Your task to perform on an android device: Do I have any events this weekend? Image 0: 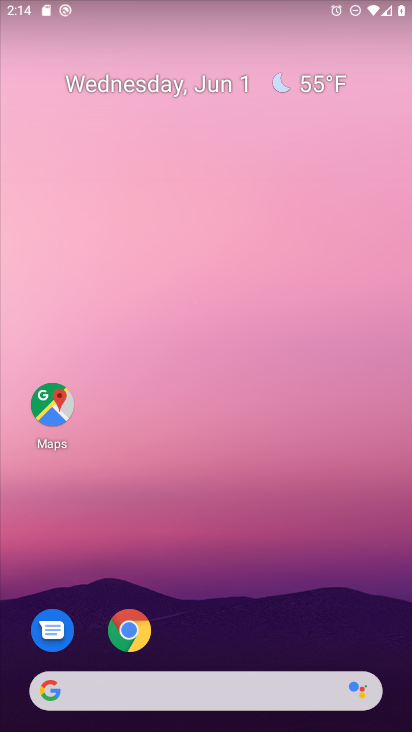
Step 0: drag from (203, 597) to (250, 5)
Your task to perform on an android device: Do I have any events this weekend? Image 1: 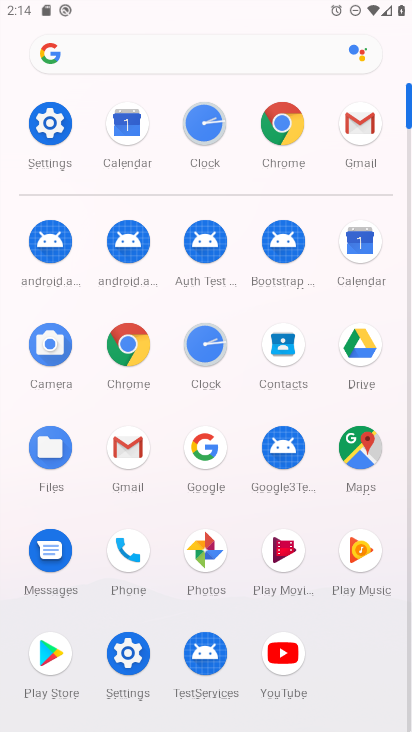
Step 1: click (364, 241)
Your task to perform on an android device: Do I have any events this weekend? Image 2: 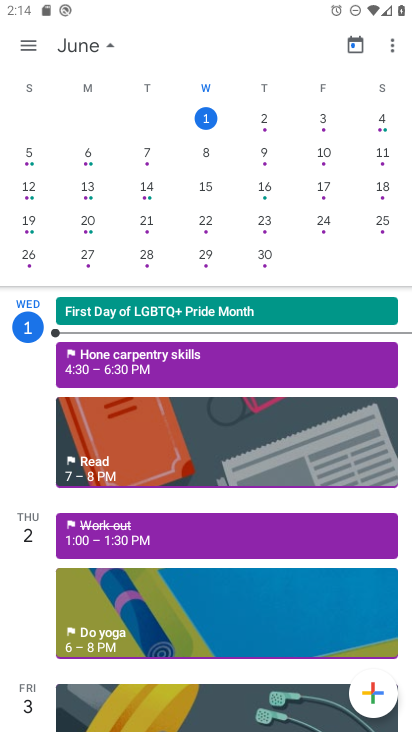
Step 2: click (375, 123)
Your task to perform on an android device: Do I have any events this weekend? Image 3: 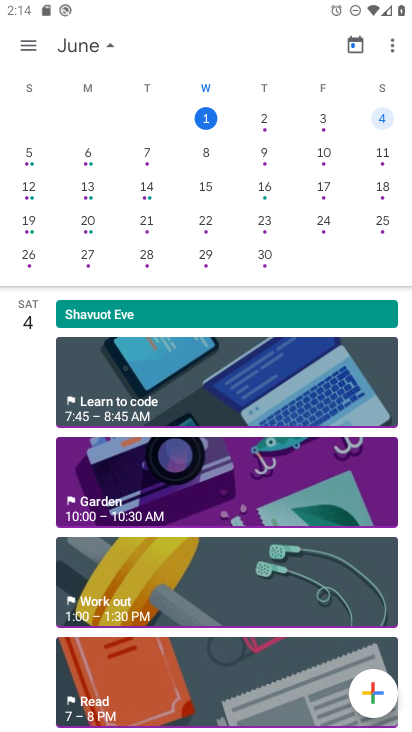
Step 3: task complete